Your task to perform on an android device: Open Chrome and go to the settings page Image 0: 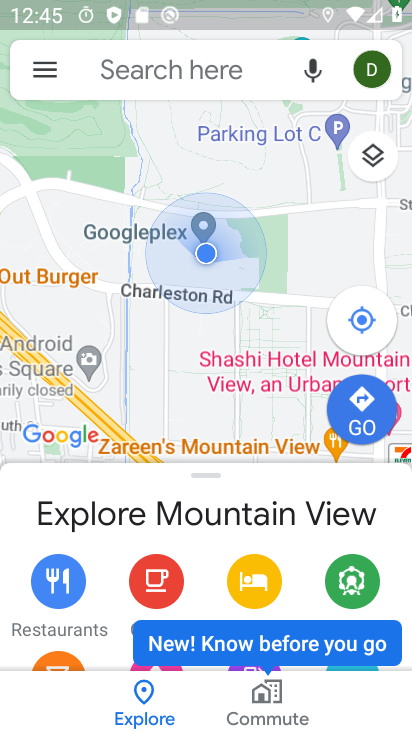
Step 0: press home button
Your task to perform on an android device: Open Chrome and go to the settings page Image 1: 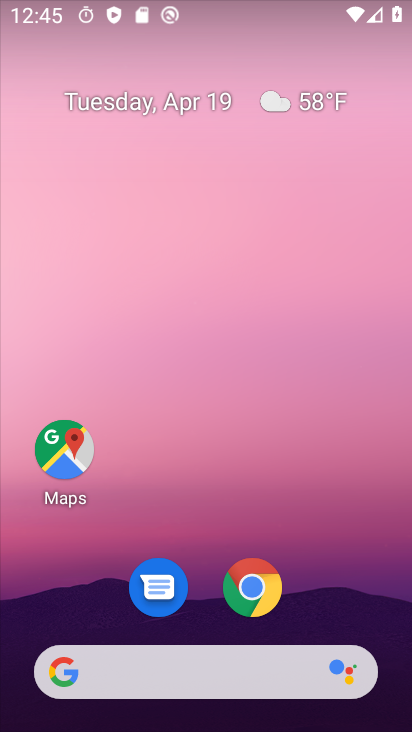
Step 1: click (237, 593)
Your task to perform on an android device: Open Chrome and go to the settings page Image 2: 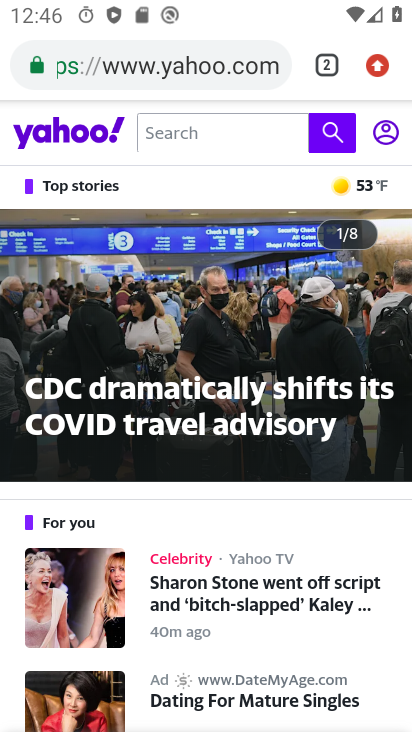
Step 2: press home button
Your task to perform on an android device: Open Chrome and go to the settings page Image 3: 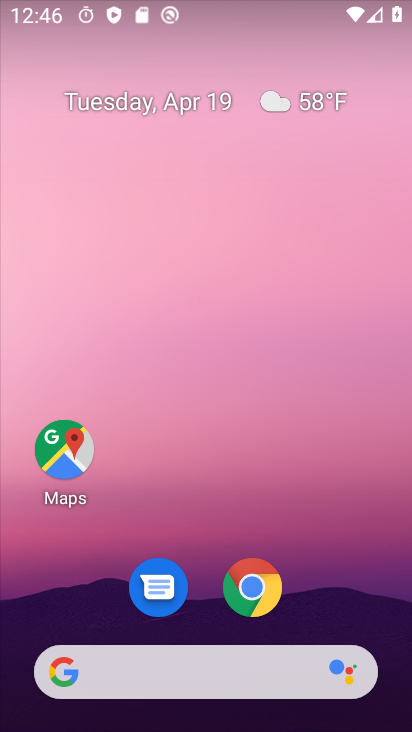
Step 3: drag from (342, 609) to (327, 200)
Your task to perform on an android device: Open Chrome and go to the settings page Image 4: 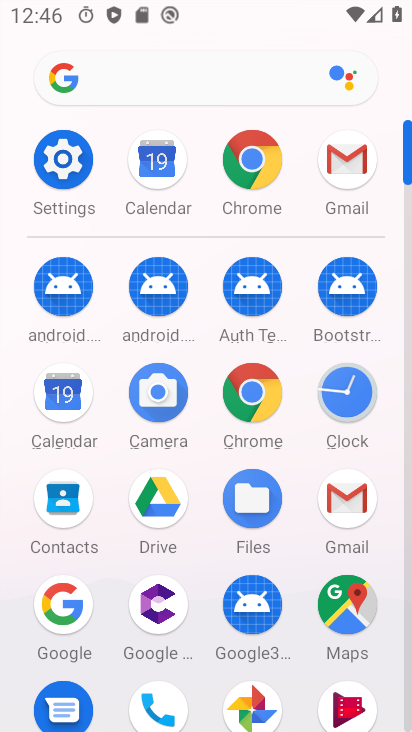
Step 4: click (242, 416)
Your task to perform on an android device: Open Chrome and go to the settings page Image 5: 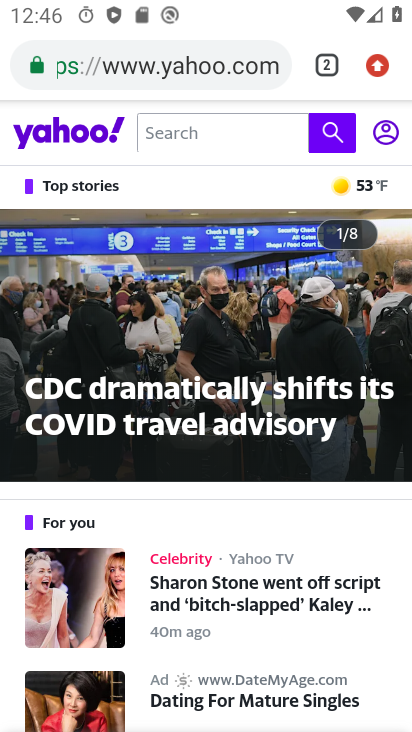
Step 5: click (367, 64)
Your task to perform on an android device: Open Chrome and go to the settings page Image 6: 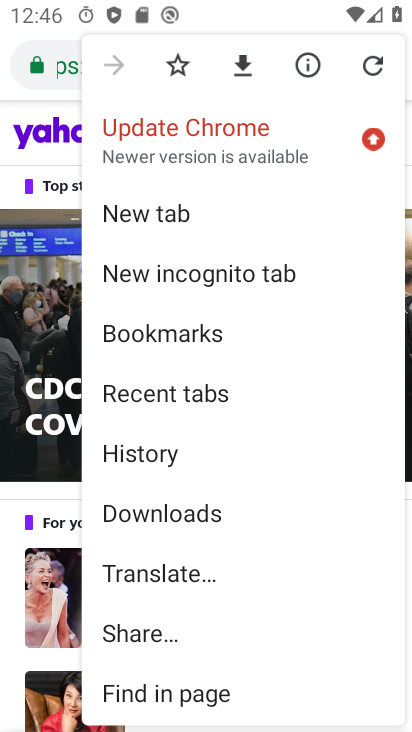
Step 6: drag from (277, 509) to (297, 300)
Your task to perform on an android device: Open Chrome and go to the settings page Image 7: 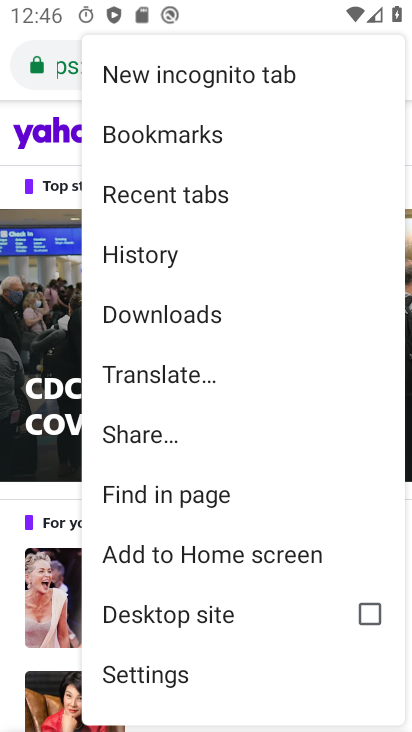
Step 7: click (158, 681)
Your task to perform on an android device: Open Chrome and go to the settings page Image 8: 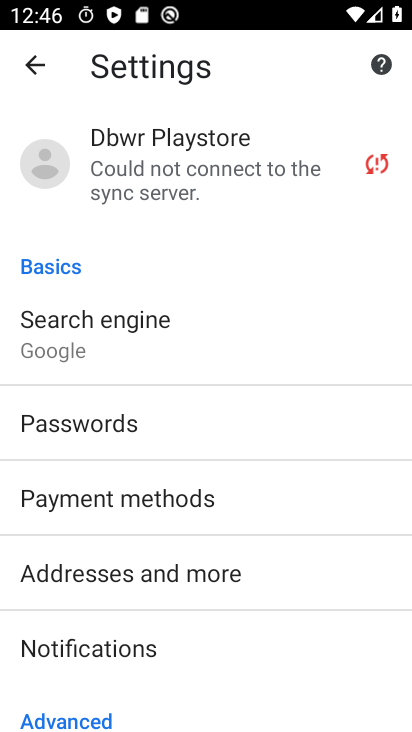
Step 8: task complete